Your task to perform on an android device: turn pop-ups on in chrome Image 0: 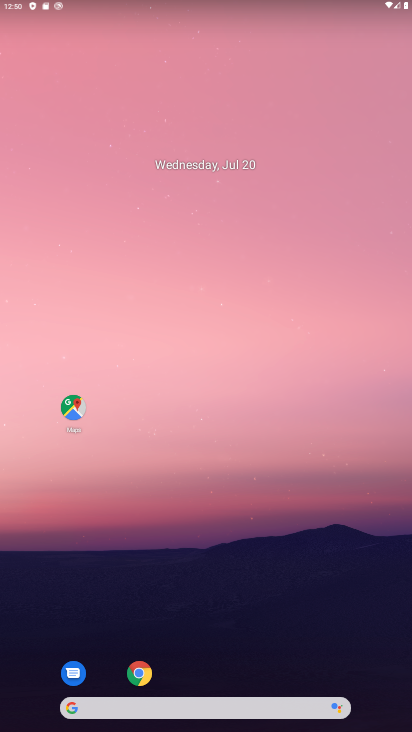
Step 0: click (145, 679)
Your task to perform on an android device: turn pop-ups on in chrome Image 1: 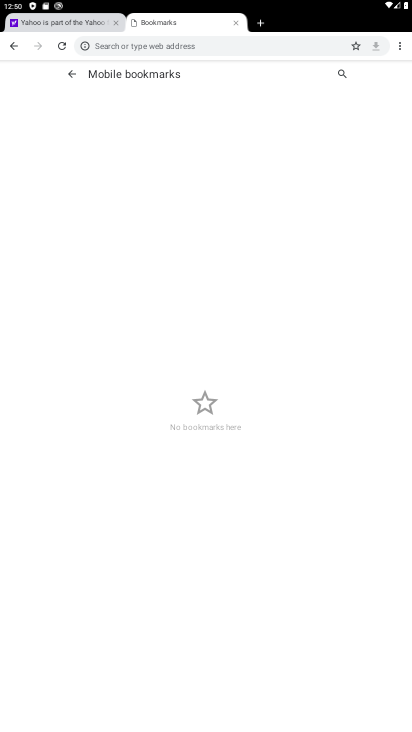
Step 1: click (400, 51)
Your task to perform on an android device: turn pop-ups on in chrome Image 2: 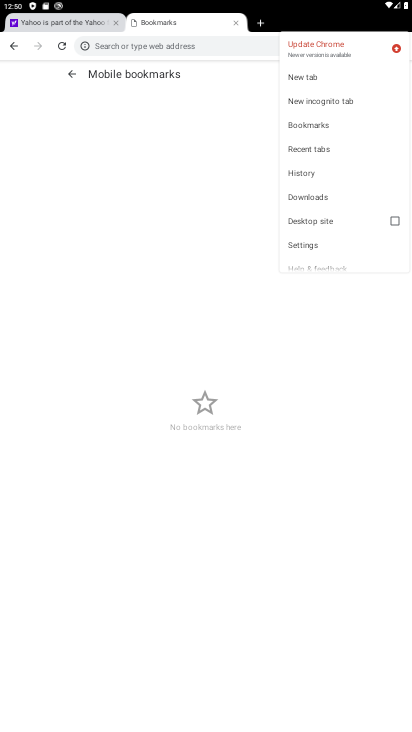
Step 2: click (311, 249)
Your task to perform on an android device: turn pop-ups on in chrome Image 3: 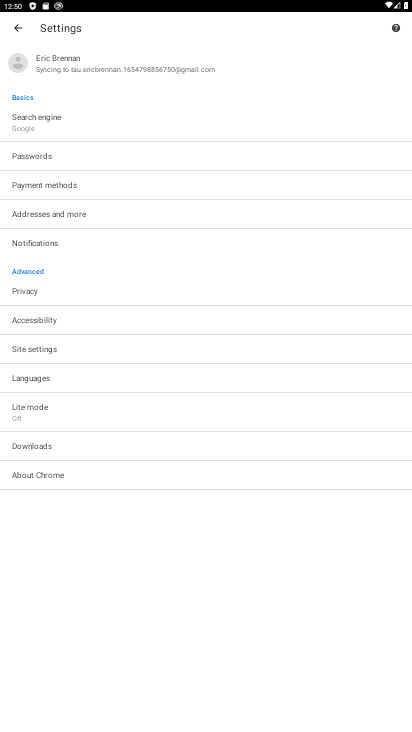
Step 3: click (107, 356)
Your task to perform on an android device: turn pop-ups on in chrome Image 4: 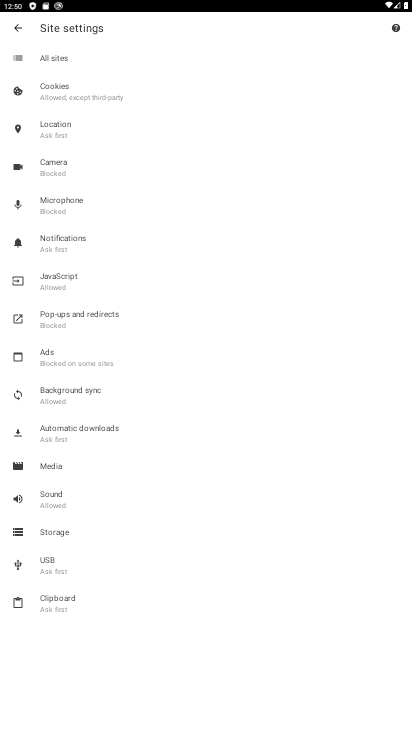
Step 4: click (89, 317)
Your task to perform on an android device: turn pop-ups on in chrome Image 5: 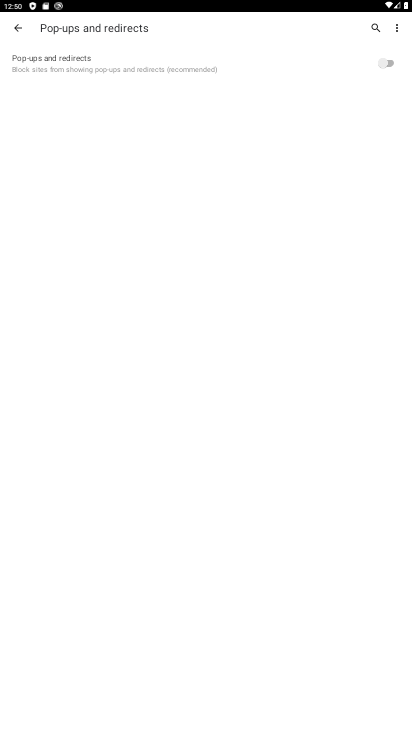
Step 5: click (386, 63)
Your task to perform on an android device: turn pop-ups on in chrome Image 6: 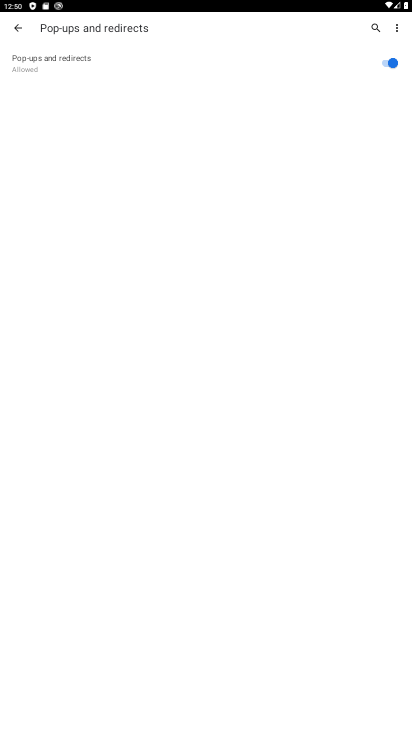
Step 6: task complete